Your task to perform on an android device: Go to Google Image 0: 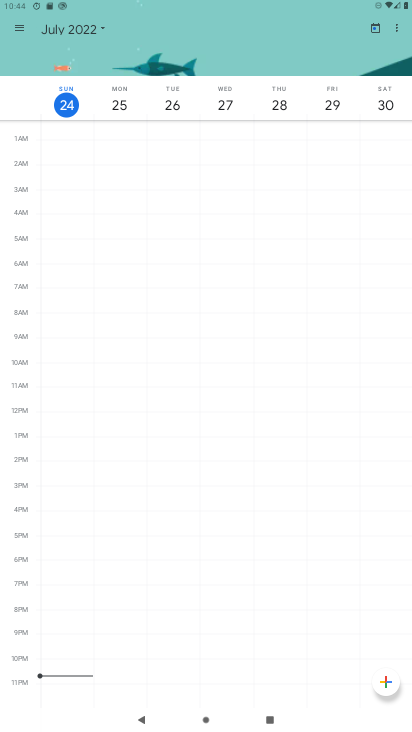
Step 0: press home button
Your task to perform on an android device: Go to Google Image 1: 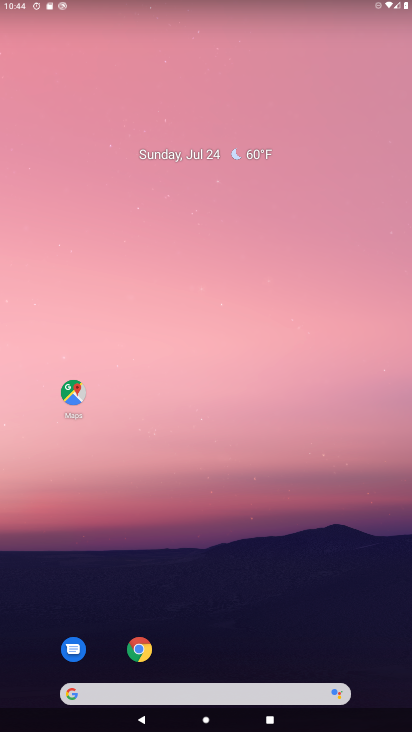
Step 1: click (147, 70)
Your task to perform on an android device: Go to Google Image 2: 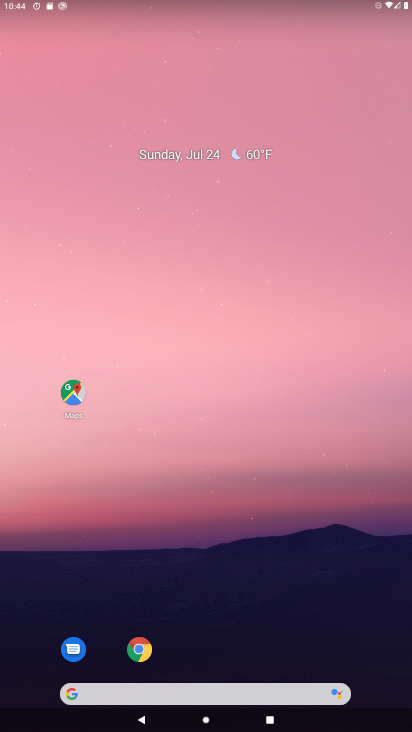
Step 2: drag from (340, 609) to (246, 82)
Your task to perform on an android device: Go to Google Image 3: 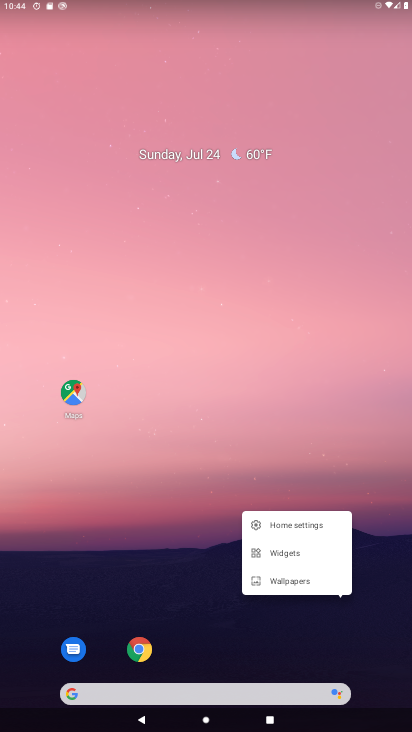
Step 3: click (137, 447)
Your task to perform on an android device: Go to Google Image 4: 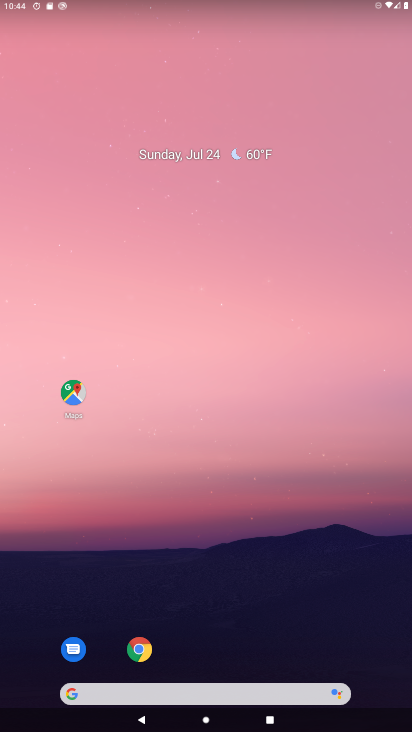
Step 4: drag from (370, 670) to (285, 79)
Your task to perform on an android device: Go to Google Image 5: 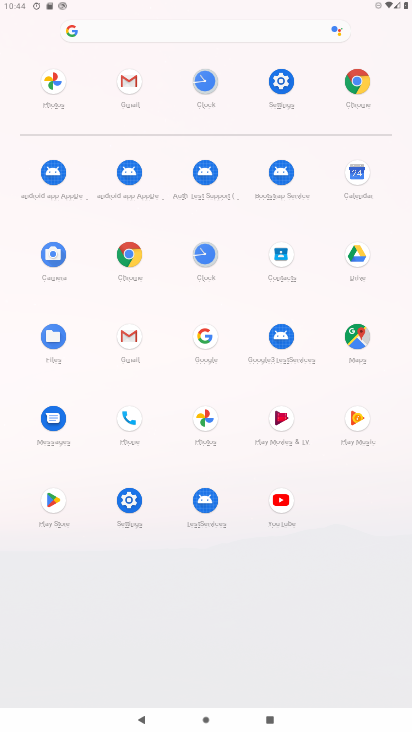
Step 5: click (205, 341)
Your task to perform on an android device: Go to Google Image 6: 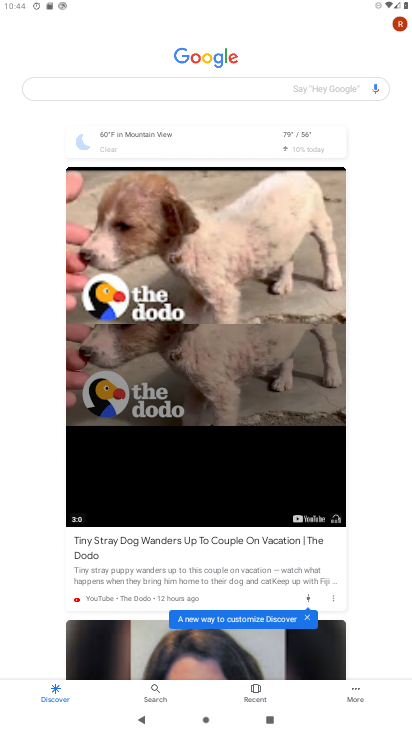
Step 6: task complete